Your task to perform on an android device: Open Maps and search for coffee Image 0: 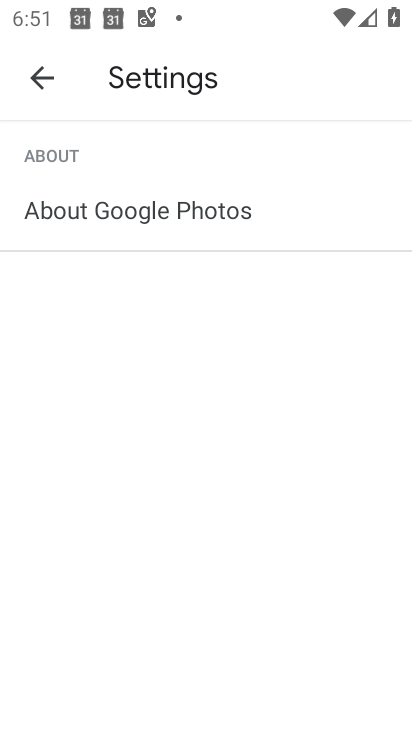
Step 0: press home button
Your task to perform on an android device: Open Maps and search for coffee Image 1: 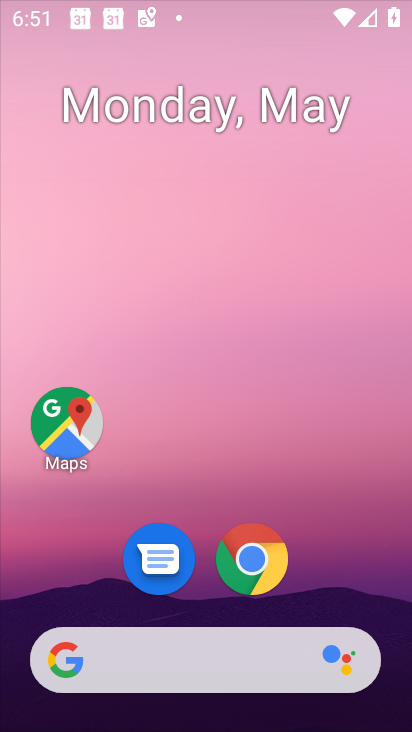
Step 1: drag from (386, 642) to (288, 187)
Your task to perform on an android device: Open Maps and search for coffee Image 2: 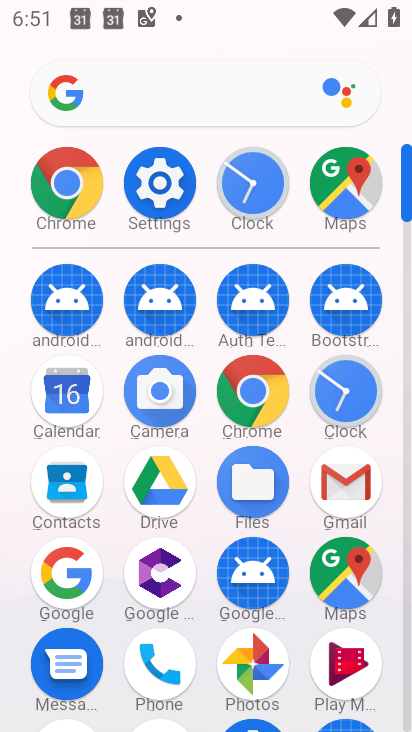
Step 2: click (344, 584)
Your task to perform on an android device: Open Maps and search for coffee Image 3: 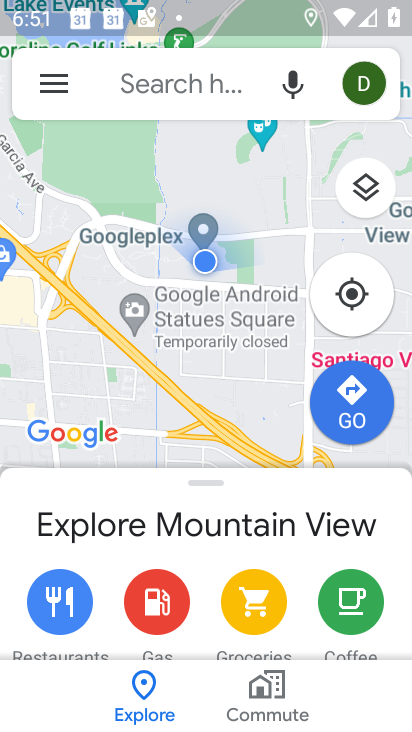
Step 3: click (149, 94)
Your task to perform on an android device: Open Maps and search for coffee Image 4: 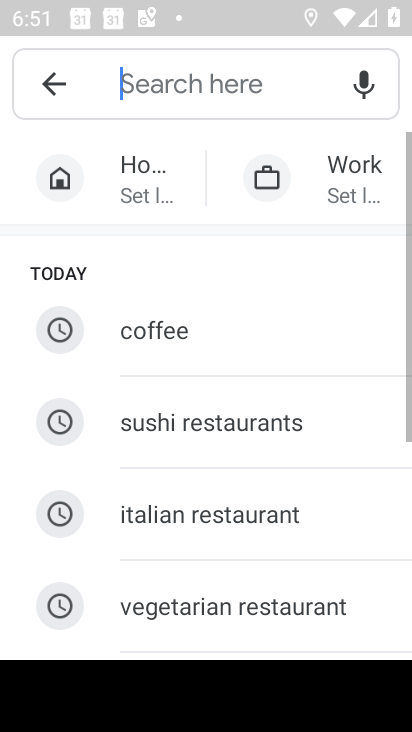
Step 4: click (161, 321)
Your task to perform on an android device: Open Maps and search for coffee Image 5: 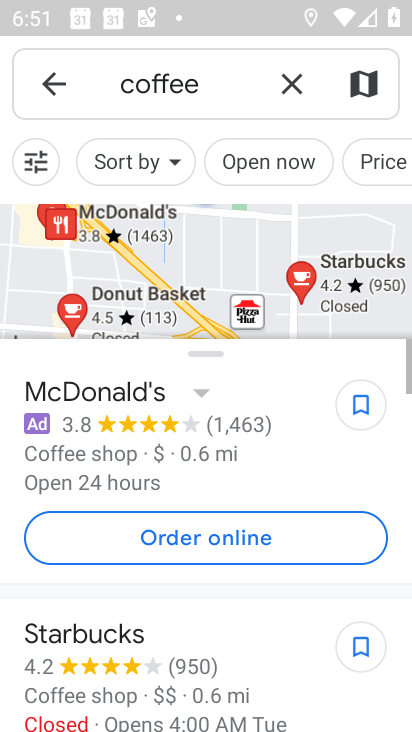
Step 5: task complete